Your task to perform on an android device: turn on improve location accuracy Image 0: 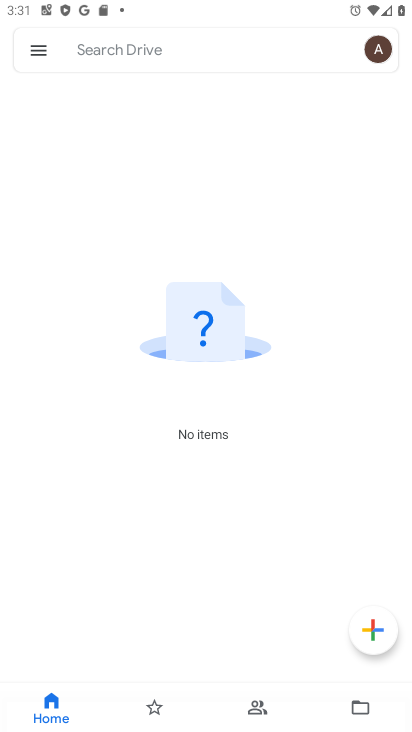
Step 0: drag from (241, 686) to (230, 316)
Your task to perform on an android device: turn on improve location accuracy Image 1: 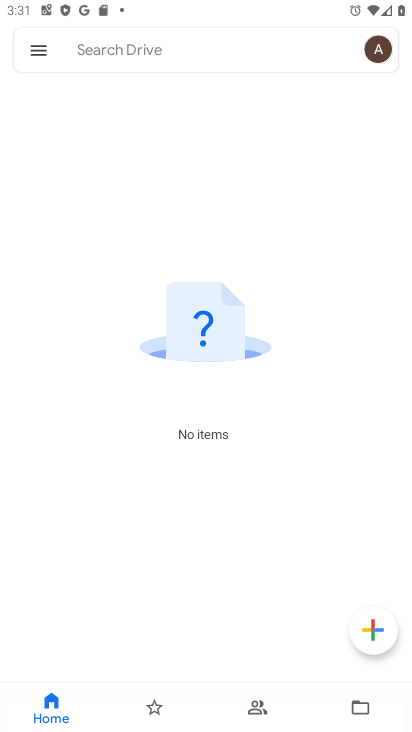
Step 1: press home button
Your task to perform on an android device: turn on improve location accuracy Image 2: 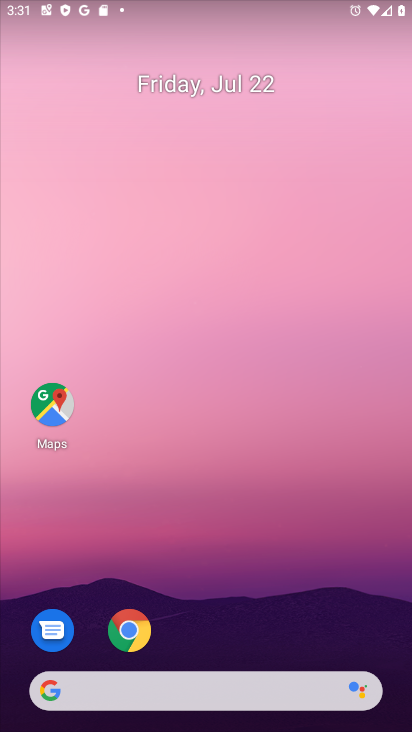
Step 2: drag from (104, 255) to (87, 219)
Your task to perform on an android device: turn on improve location accuracy Image 3: 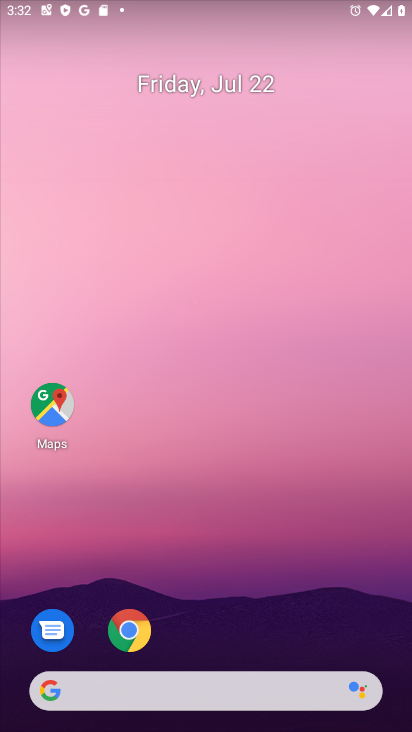
Step 3: drag from (187, 720) to (155, 328)
Your task to perform on an android device: turn on improve location accuracy Image 4: 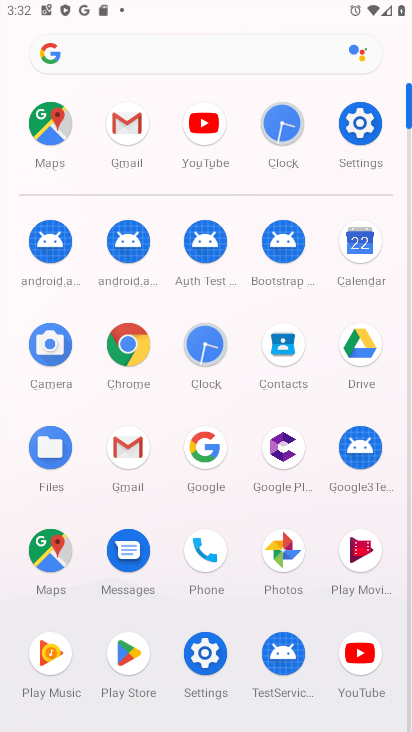
Step 4: click (351, 116)
Your task to perform on an android device: turn on improve location accuracy Image 5: 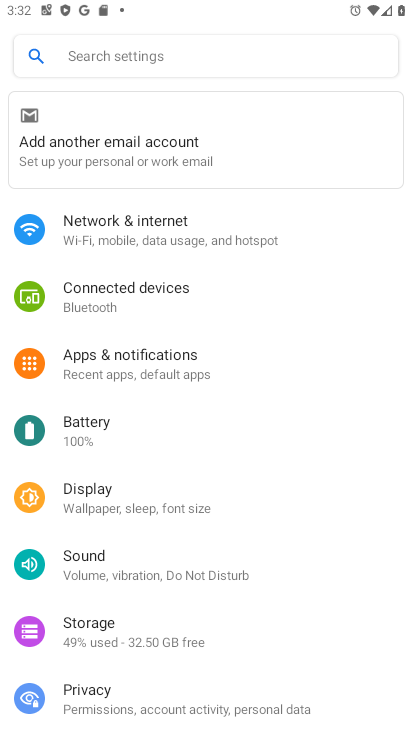
Step 5: drag from (112, 598) to (99, 76)
Your task to perform on an android device: turn on improve location accuracy Image 6: 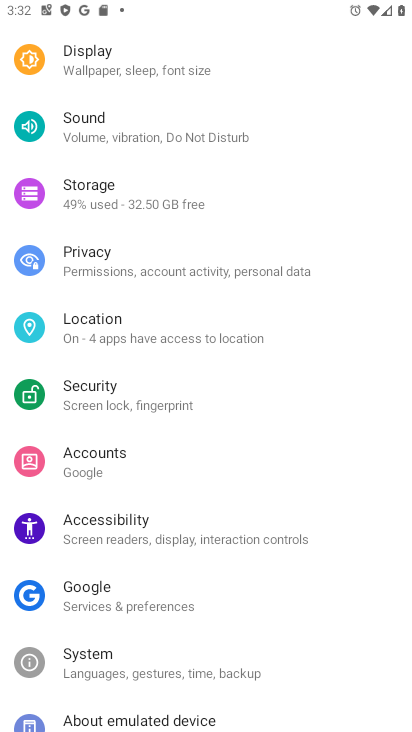
Step 6: click (121, 325)
Your task to perform on an android device: turn on improve location accuracy Image 7: 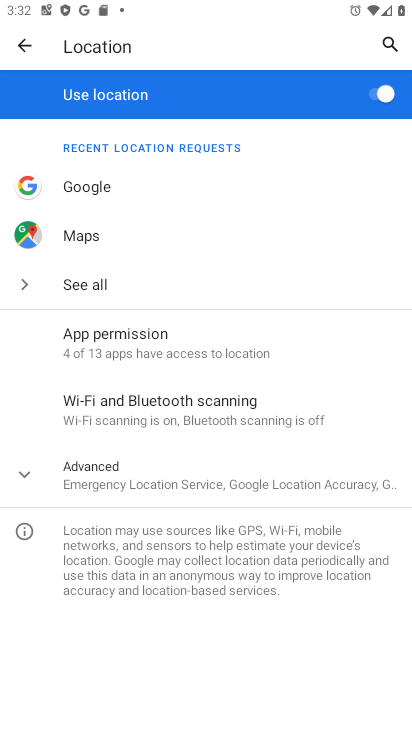
Step 7: click (108, 467)
Your task to perform on an android device: turn on improve location accuracy Image 8: 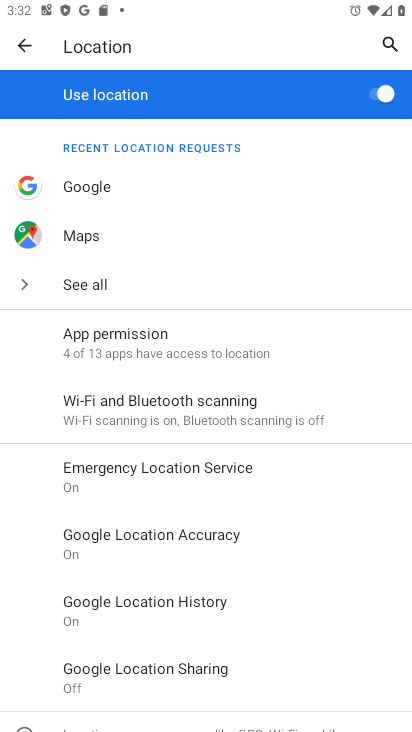
Step 8: click (147, 544)
Your task to perform on an android device: turn on improve location accuracy Image 9: 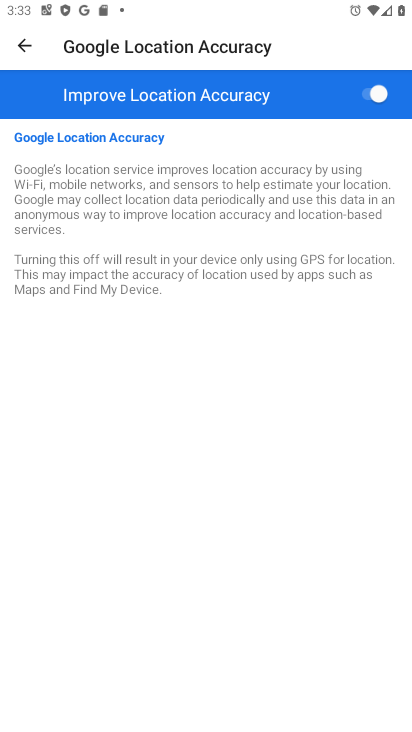
Step 9: task complete